Your task to perform on an android device: turn pop-ups on in chrome Image 0: 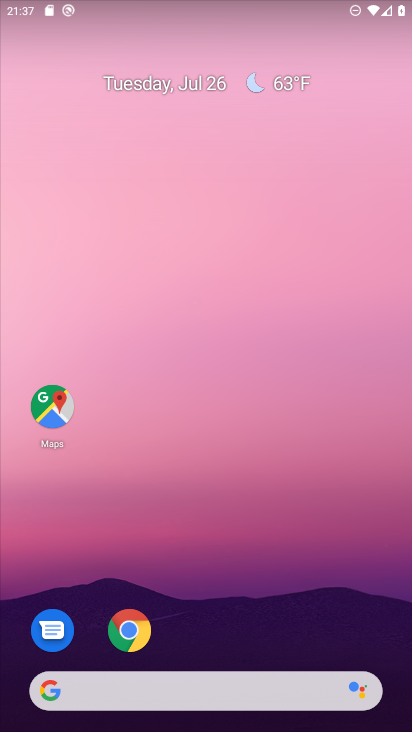
Step 0: click (131, 626)
Your task to perform on an android device: turn pop-ups on in chrome Image 1: 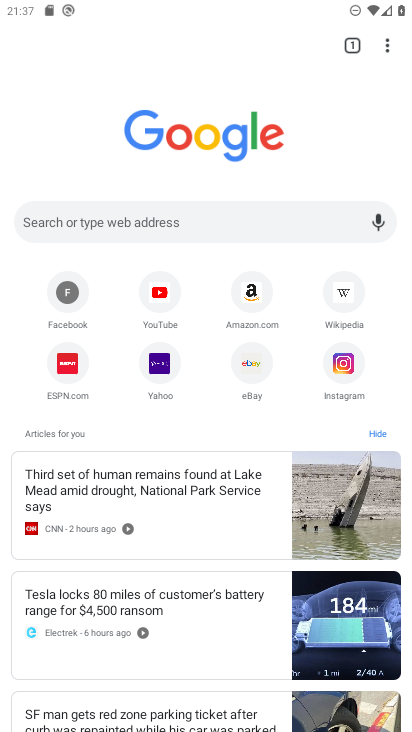
Step 1: click (391, 49)
Your task to perform on an android device: turn pop-ups on in chrome Image 2: 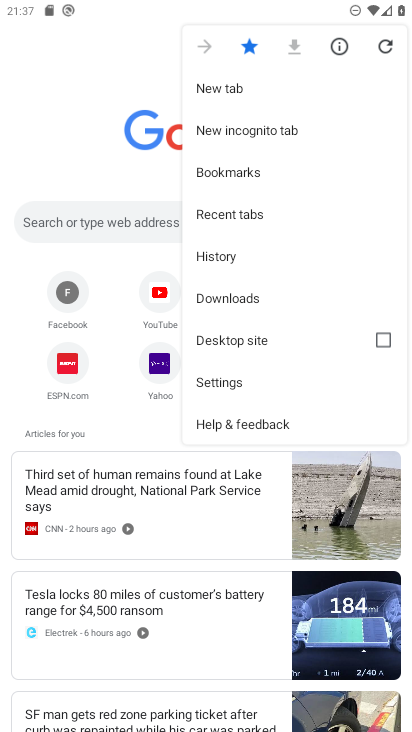
Step 2: click (201, 378)
Your task to perform on an android device: turn pop-ups on in chrome Image 3: 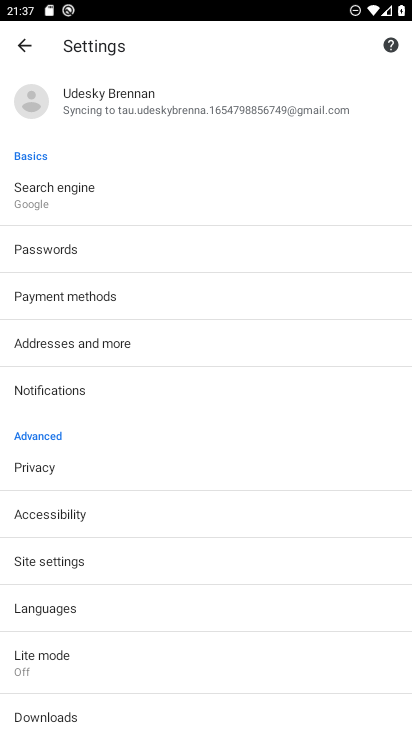
Step 3: click (107, 557)
Your task to perform on an android device: turn pop-ups on in chrome Image 4: 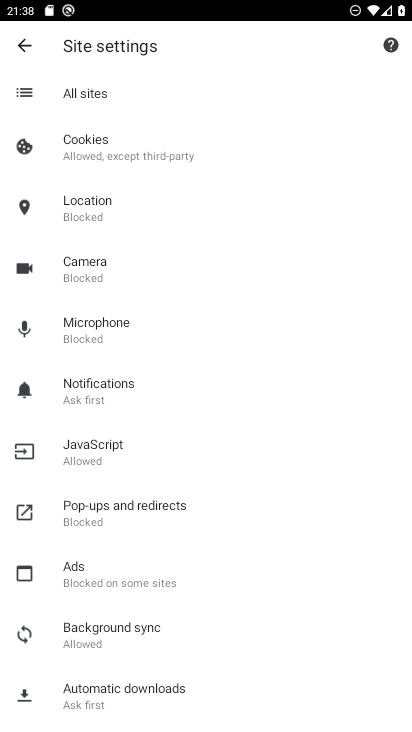
Step 4: click (85, 503)
Your task to perform on an android device: turn pop-ups on in chrome Image 5: 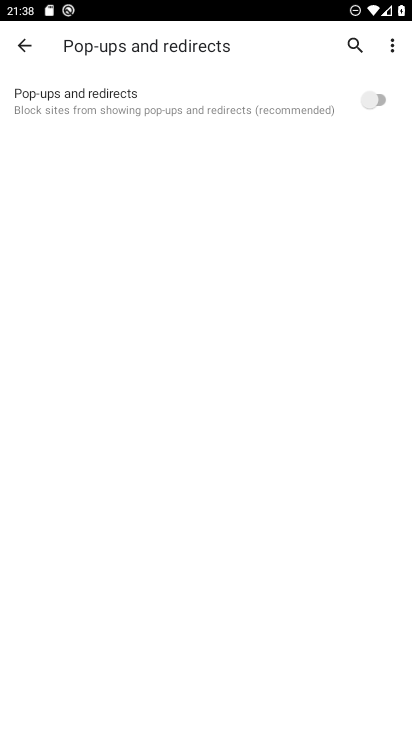
Step 5: click (373, 98)
Your task to perform on an android device: turn pop-ups on in chrome Image 6: 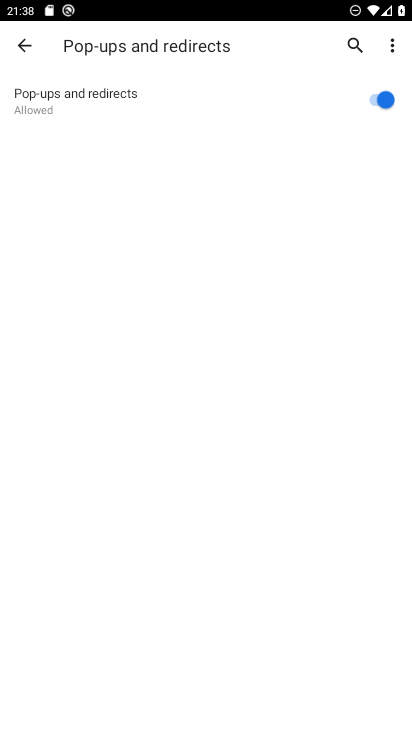
Step 6: task complete